Your task to perform on an android device: turn off improve location accuracy Image 0: 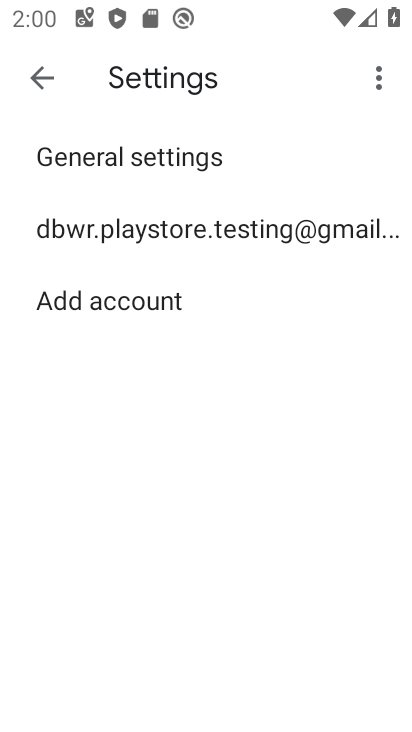
Step 0: press home button
Your task to perform on an android device: turn off improve location accuracy Image 1: 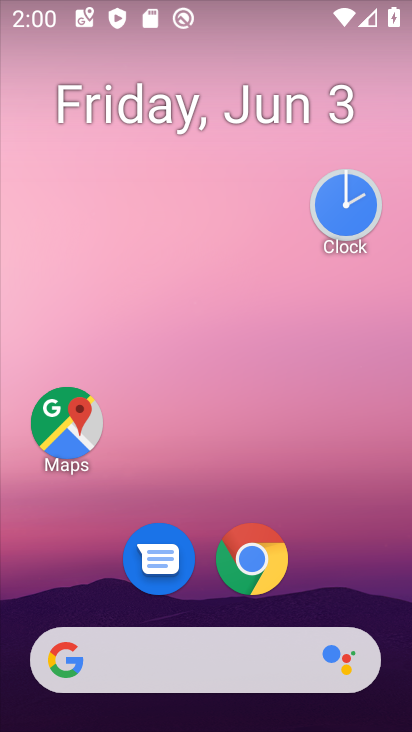
Step 1: drag from (371, 575) to (324, 225)
Your task to perform on an android device: turn off improve location accuracy Image 2: 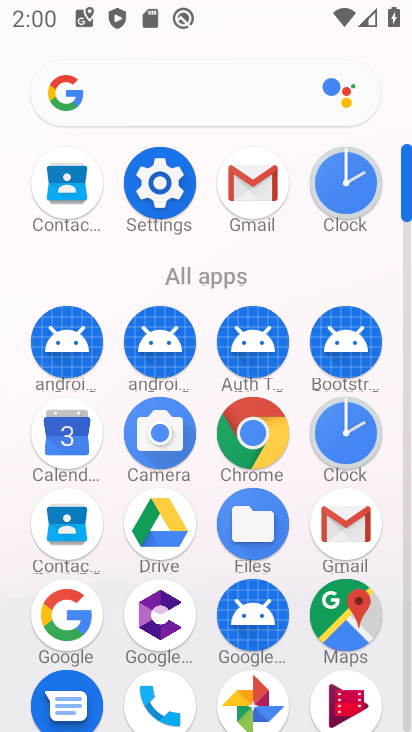
Step 2: click (169, 191)
Your task to perform on an android device: turn off improve location accuracy Image 3: 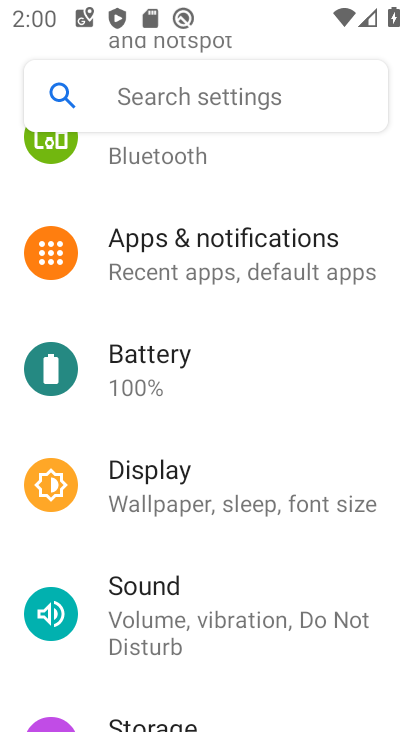
Step 3: drag from (236, 564) to (205, 336)
Your task to perform on an android device: turn off improve location accuracy Image 4: 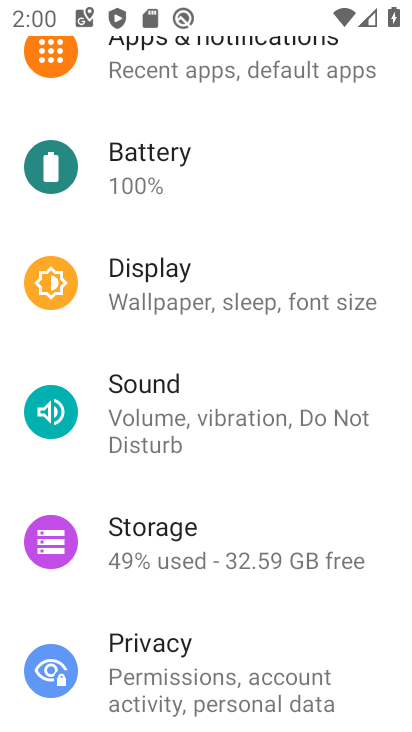
Step 4: drag from (239, 571) to (228, 292)
Your task to perform on an android device: turn off improve location accuracy Image 5: 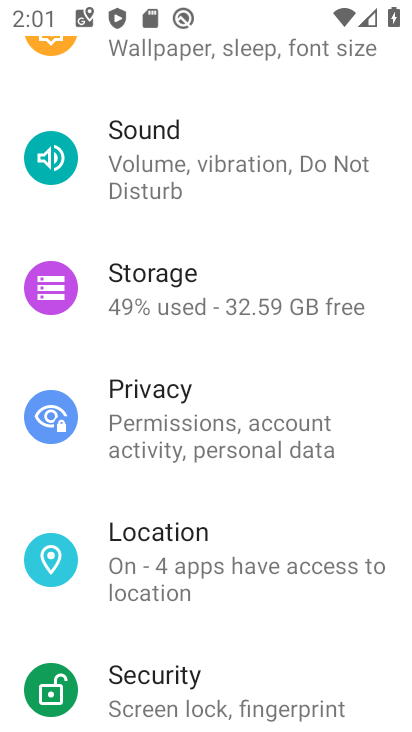
Step 5: click (207, 542)
Your task to perform on an android device: turn off improve location accuracy Image 6: 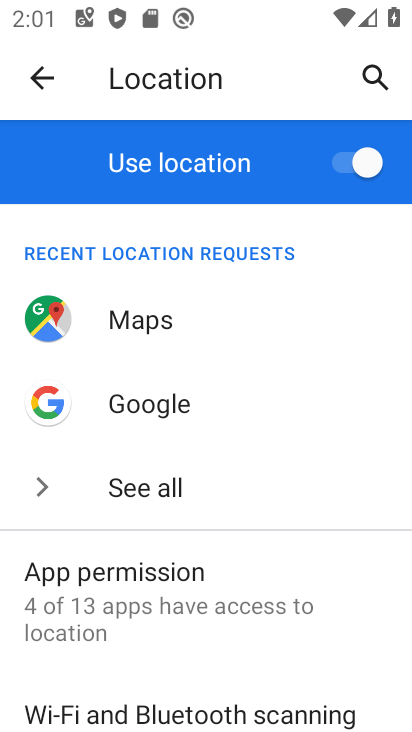
Step 6: drag from (304, 485) to (298, 364)
Your task to perform on an android device: turn off improve location accuracy Image 7: 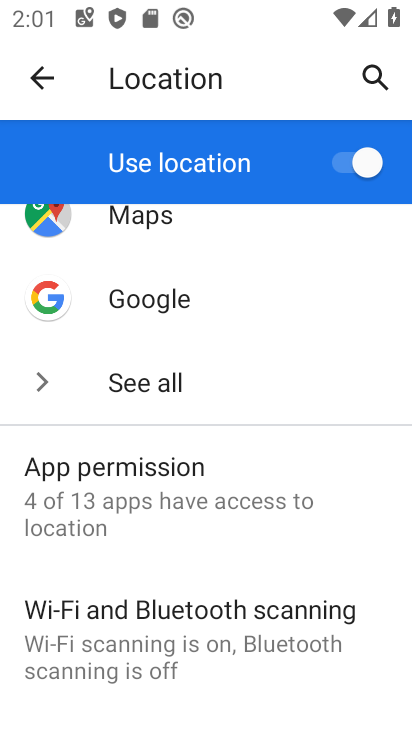
Step 7: drag from (275, 612) to (276, 429)
Your task to perform on an android device: turn off improve location accuracy Image 8: 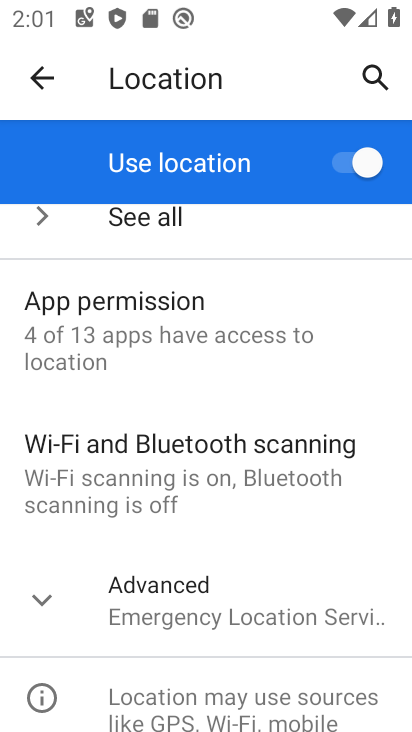
Step 8: click (222, 601)
Your task to perform on an android device: turn off improve location accuracy Image 9: 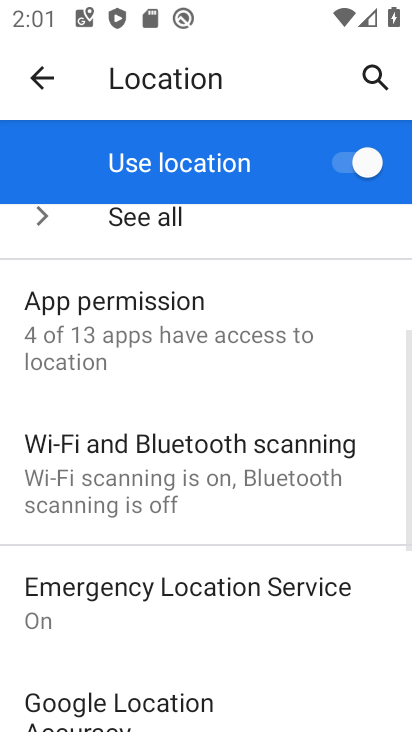
Step 9: drag from (263, 646) to (207, 469)
Your task to perform on an android device: turn off improve location accuracy Image 10: 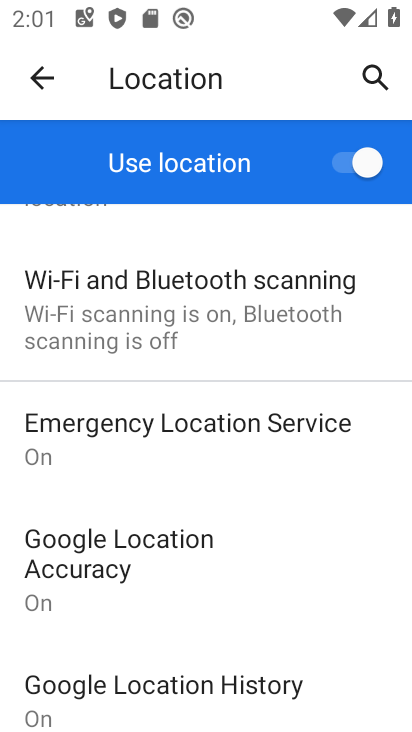
Step 10: click (195, 542)
Your task to perform on an android device: turn off improve location accuracy Image 11: 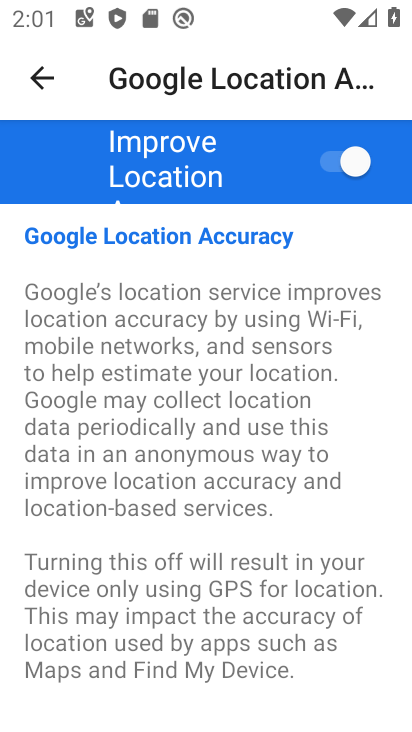
Step 11: click (344, 172)
Your task to perform on an android device: turn off improve location accuracy Image 12: 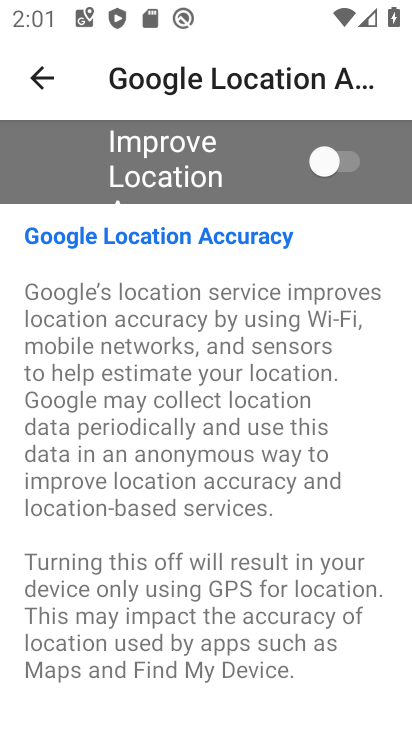
Step 12: task complete